Your task to perform on an android device: turn on priority inbox in the gmail app Image 0: 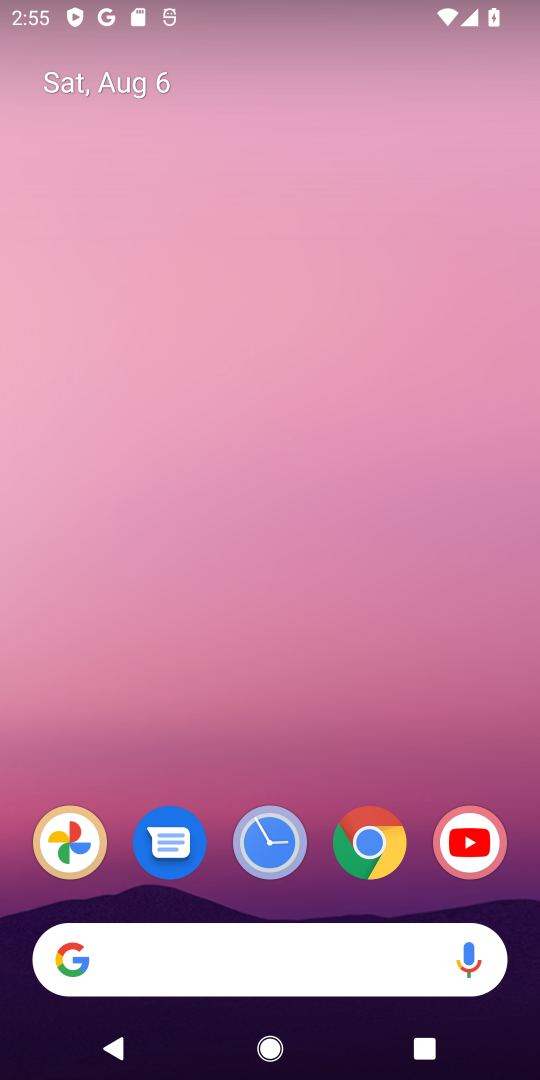
Step 0: drag from (501, 1048) to (333, 220)
Your task to perform on an android device: turn on priority inbox in the gmail app Image 1: 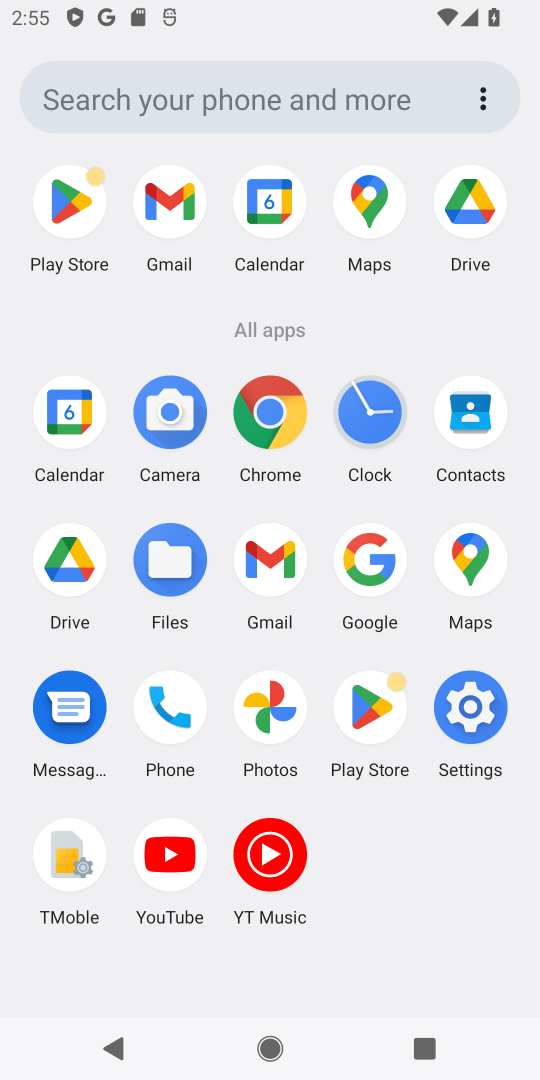
Step 1: click (277, 563)
Your task to perform on an android device: turn on priority inbox in the gmail app Image 2: 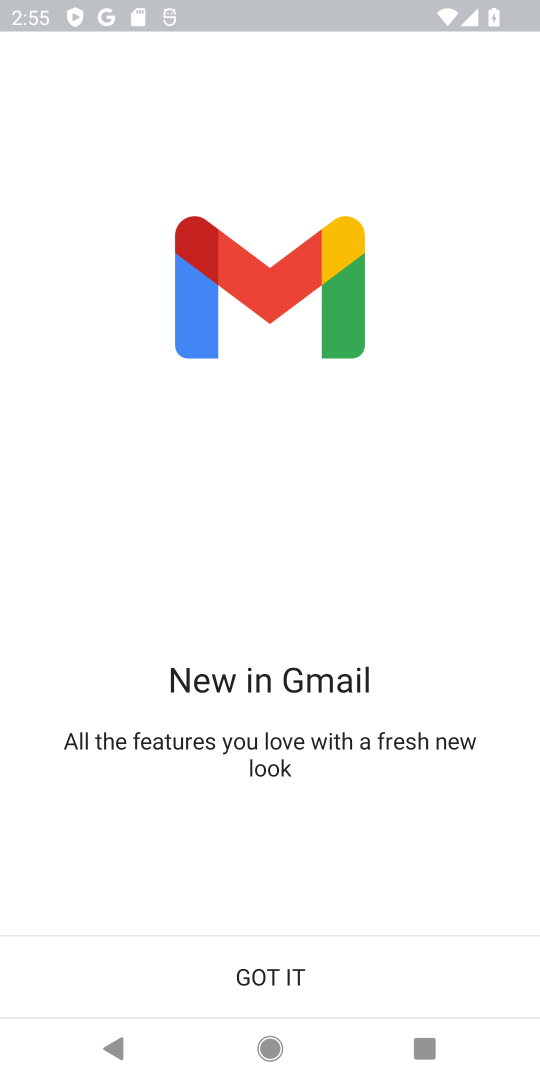
Step 2: click (276, 969)
Your task to perform on an android device: turn on priority inbox in the gmail app Image 3: 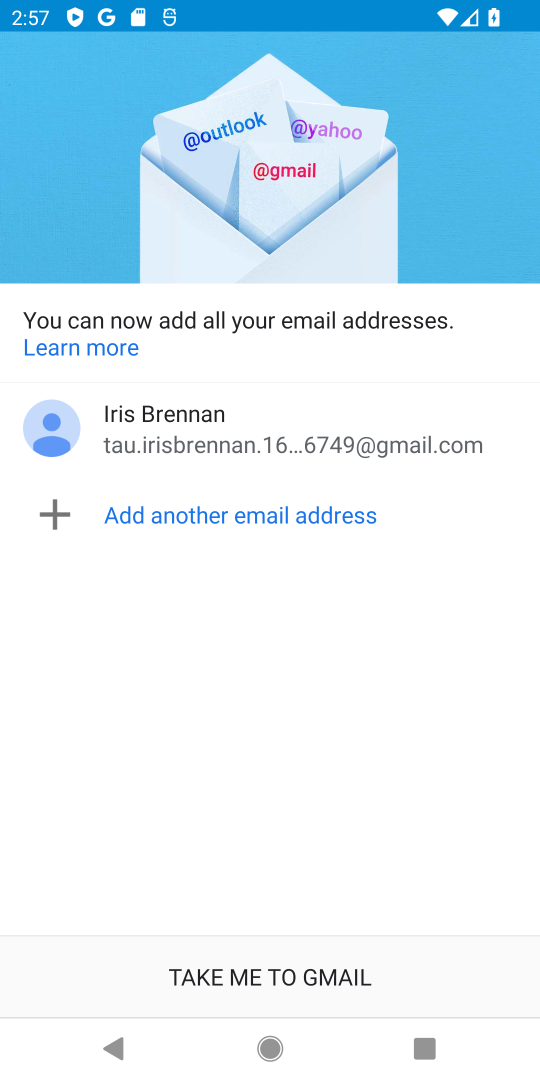
Step 3: click (312, 954)
Your task to perform on an android device: turn on priority inbox in the gmail app Image 4: 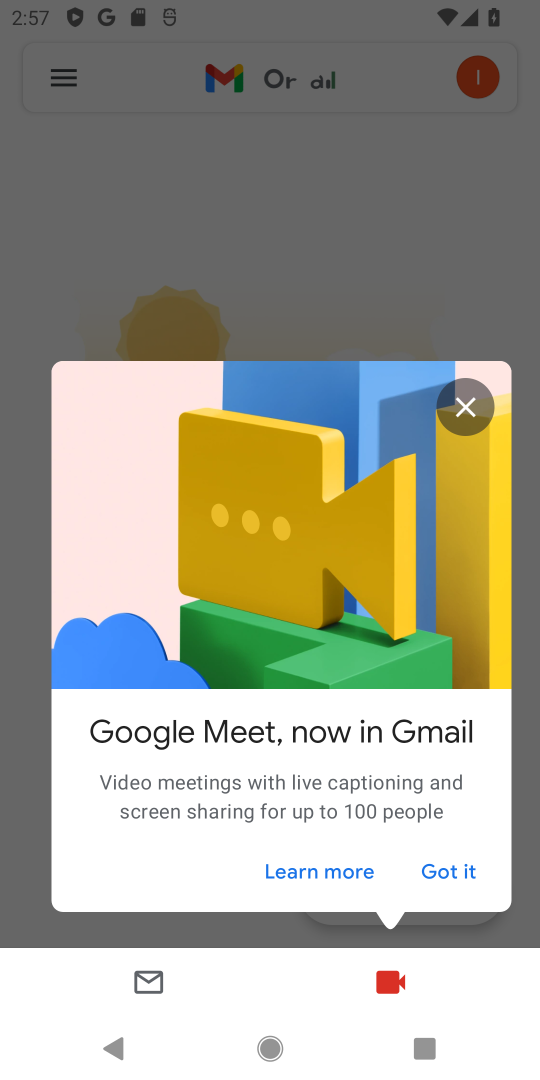
Step 4: click (475, 411)
Your task to perform on an android device: turn on priority inbox in the gmail app Image 5: 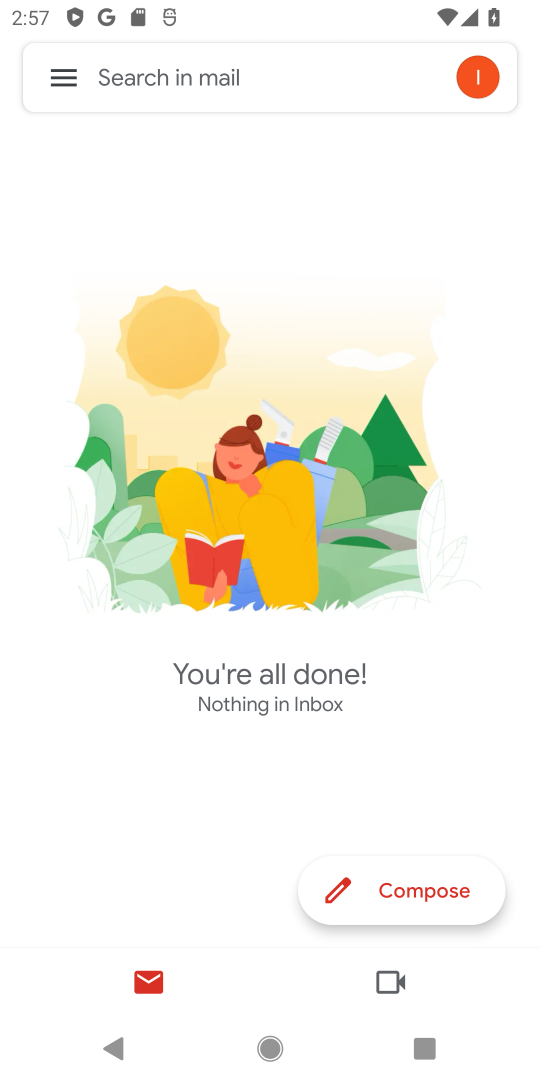
Step 5: click (57, 76)
Your task to perform on an android device: turn on priority inbox in the gmail app Image 6: 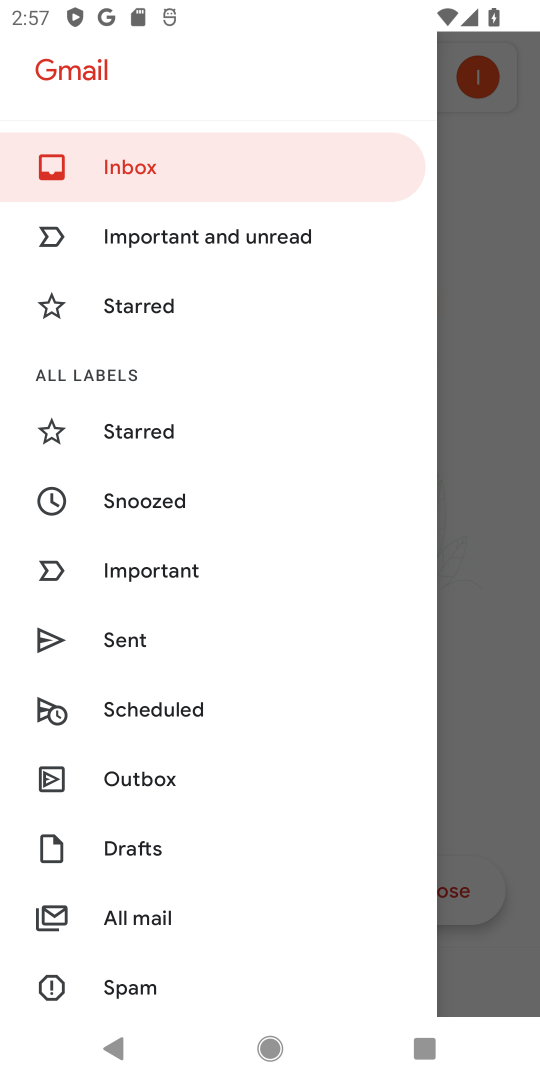
Step 6: drag from (251, 914) to (240, 422)
Your task to perform on an android device: turn on priority inbox in the gmail app Image 7: 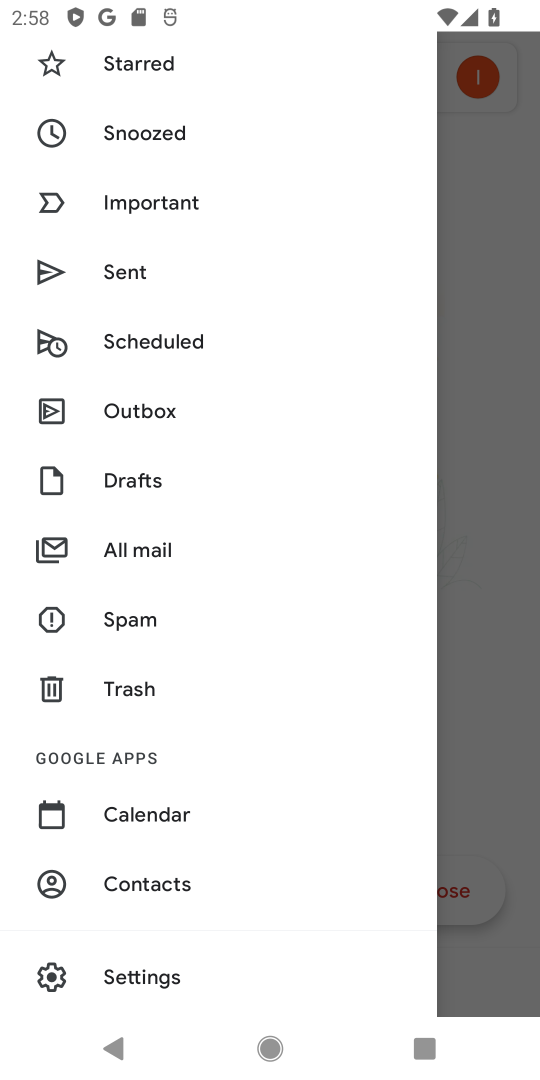
Step 7: click (129, 976)
Your task to perform on an android device: turn on priority inbox in the gmail app Image 8: 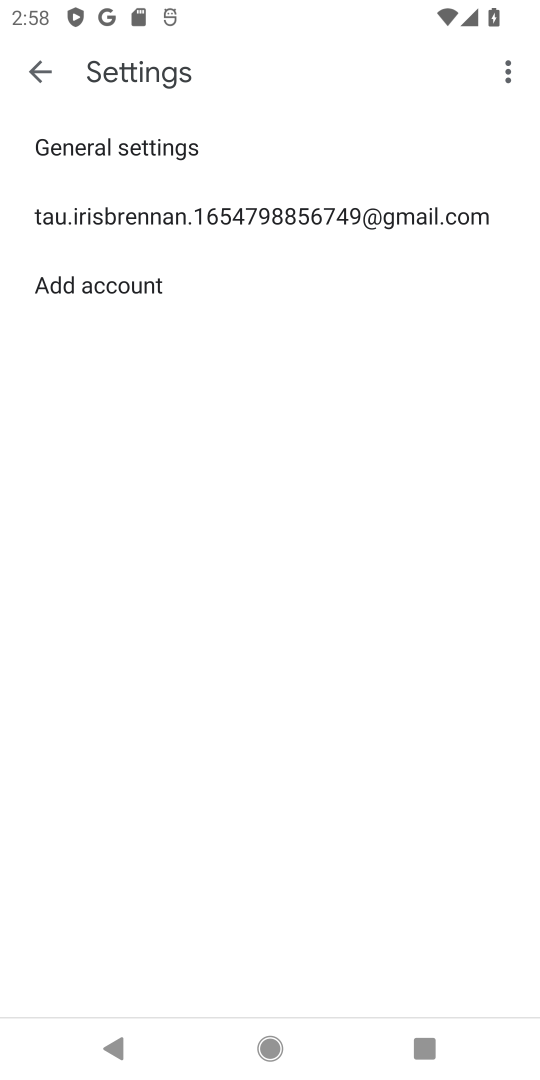
Step 8: click (245, 208)
Your task to perform on an android device: turn on priority inbox in the gmail app Image 9: 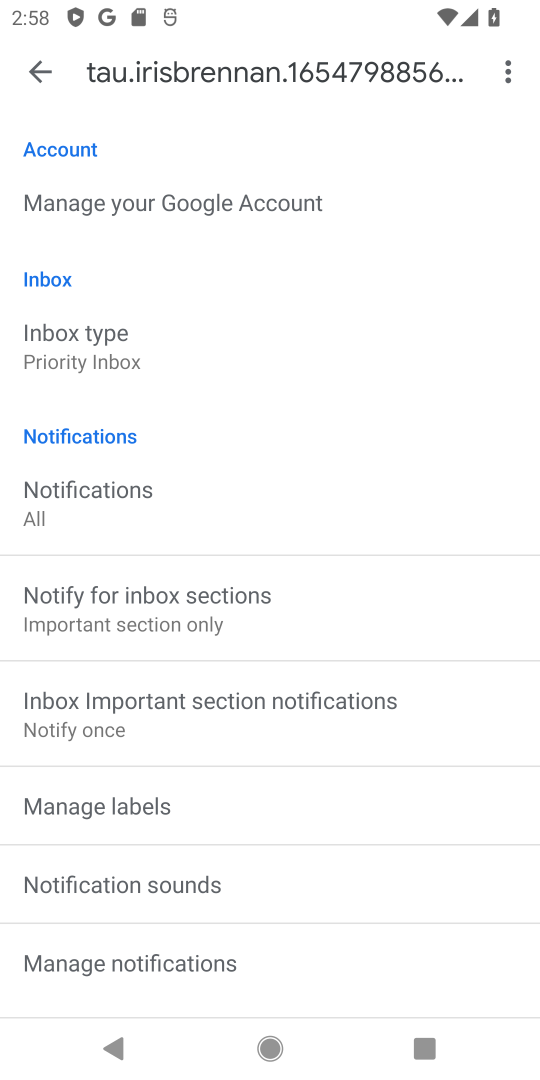
Step 9: click (80, 332)
Your task to perform on an android device: turn on priority inbox in the gmail app Image 10: 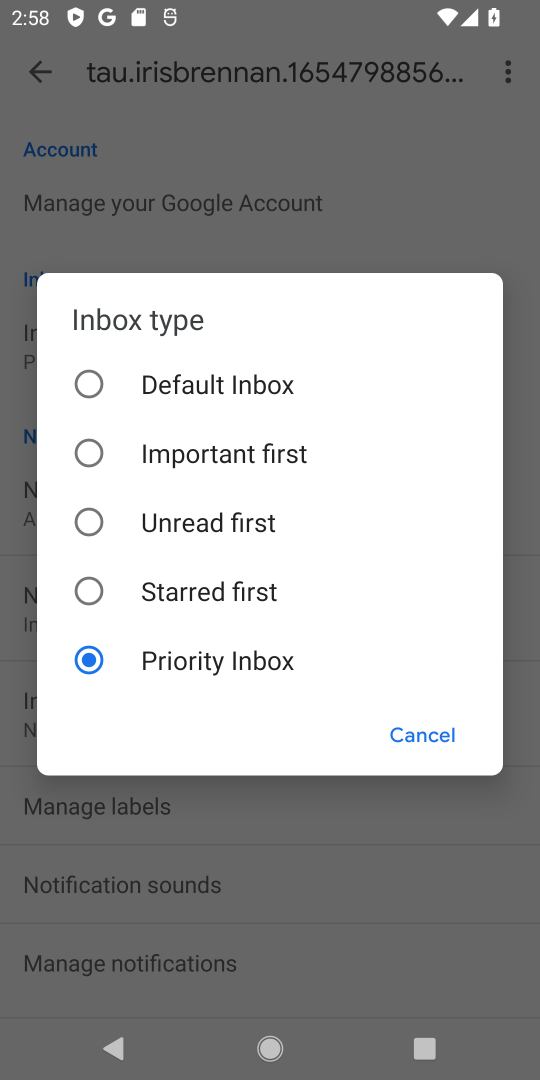
Step 10: task complete